Your task to perform on an android device: change the clock display to analog Image 0: 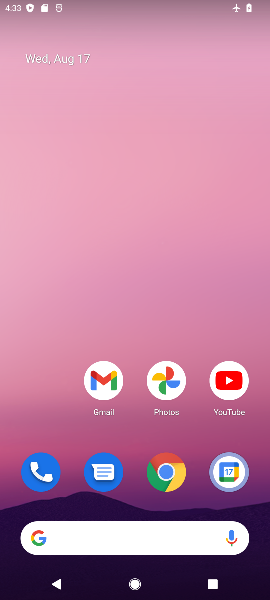
Step 0: drag from (140, 442) to (153, 86)
Your task to perform on an android device: change the clock display to analog Image 1: 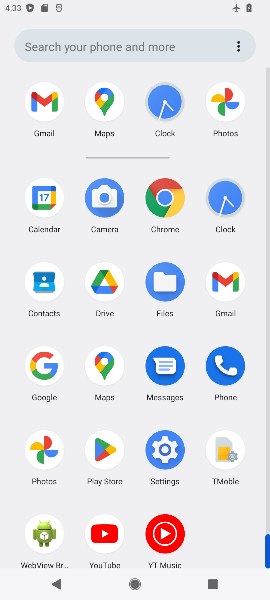
Step 1: click (175, 98)
Your task to perform on an android device: change the clock display to analog Image 2: 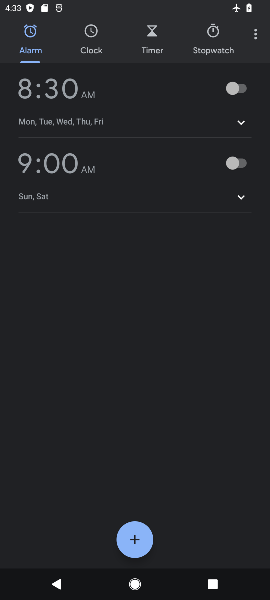
Step 2: click (254, 37)
Your task to perform on an android device: change the clock display to analog Image 3: 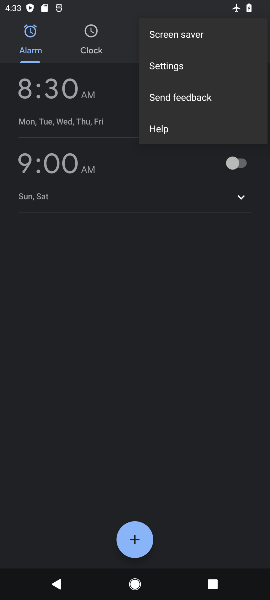
Step 3: click (194, 63)
Your task to perform on an android device: change the clock display to analog Image 4: 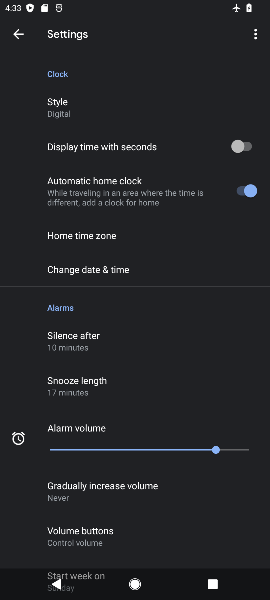
Step 4: click (62, 110)
Your task to perform on an android device: change the clock display to analog Image 5: 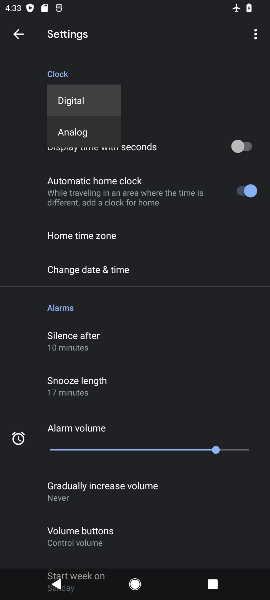
Step 5: click (89, 136)
Your task to perform on an android device: change the clock display to analog Image 6: 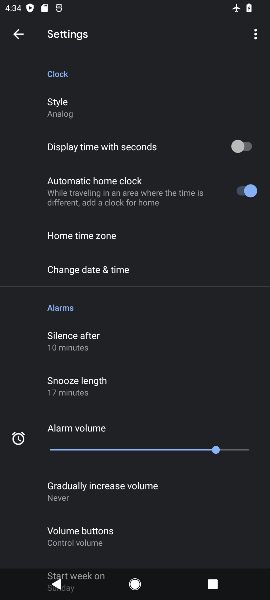
Step 6: task complete